Your task to perform on an android device: turn notification dots off Image 0: 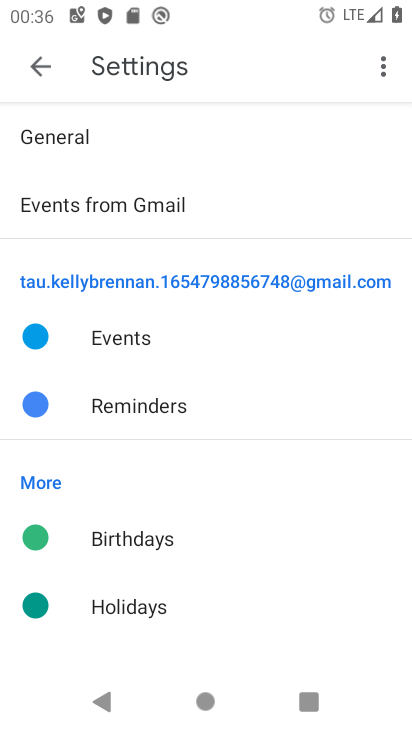
Step 0: press home button
Your task to perform on an android device: turn notification dots off Image 1: 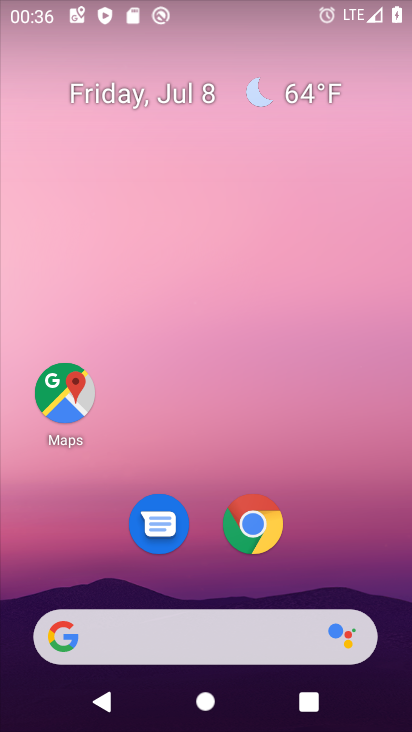
Step 1: drag from (326, 534) to (380, 31)
Your task to perform on an android device: turn notification dots off Image 2: 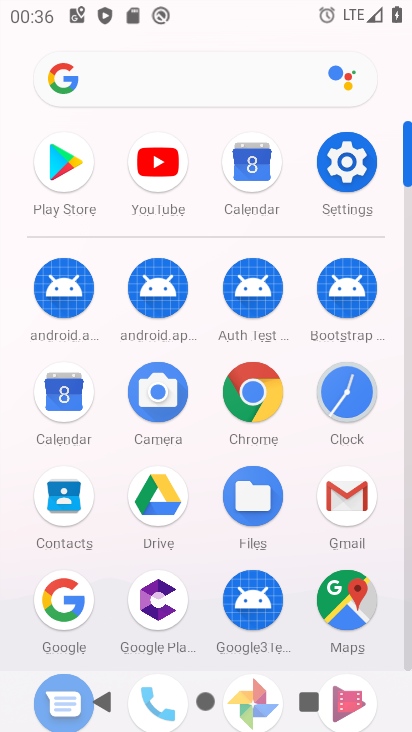
Step 2: click (343, 161)
Your task to perform on an android device: turn notification dots off Image 3: 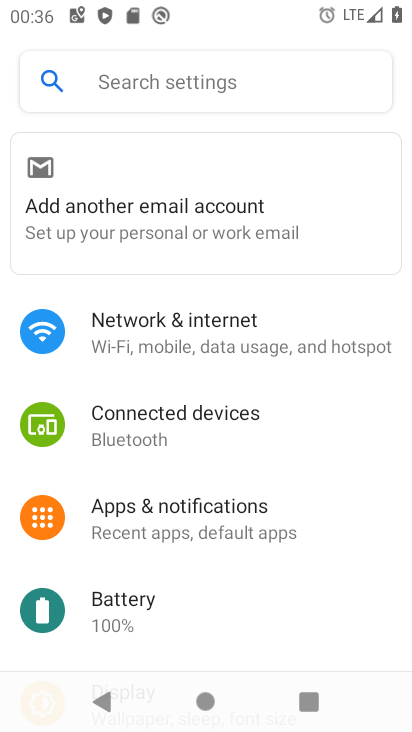
Step 3: click (214, 508)
Your task to perform on an android device: turn notification dots off Image 4: 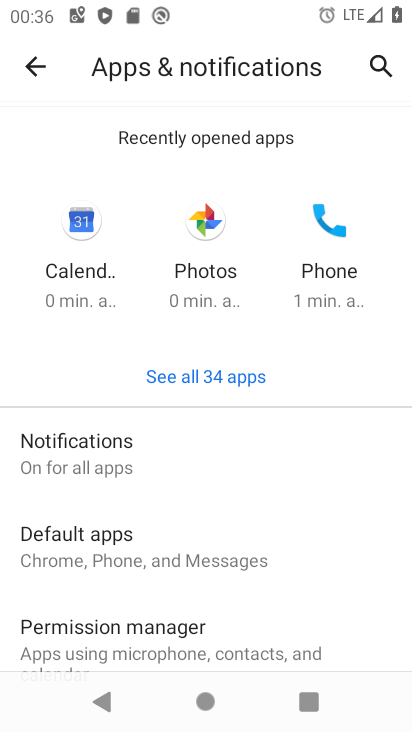
Step 4: click (118, 458)
Your task to perform on an android device: turn notification dots off Image 5: 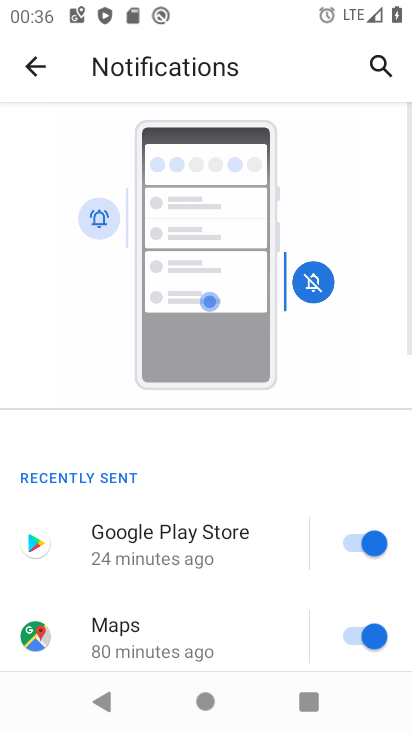
Step 5: drag from (242, 581) to (291, 117)
Your task to perform on an android device: turn notification dots off Image 6: 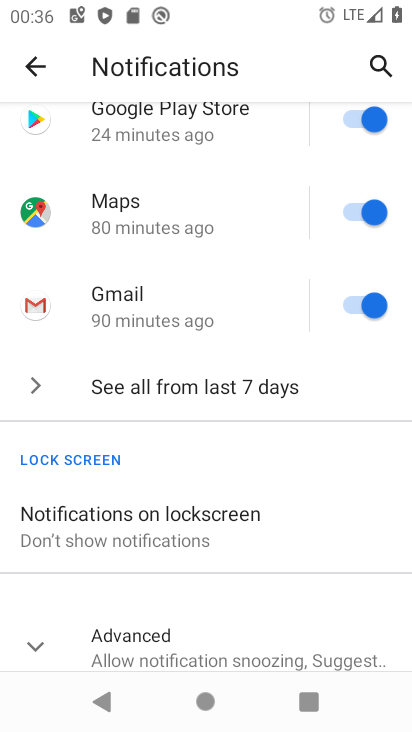
Step 6: click (35, 649)
Your task to perform on an android device: turn notification dots off Image 7: 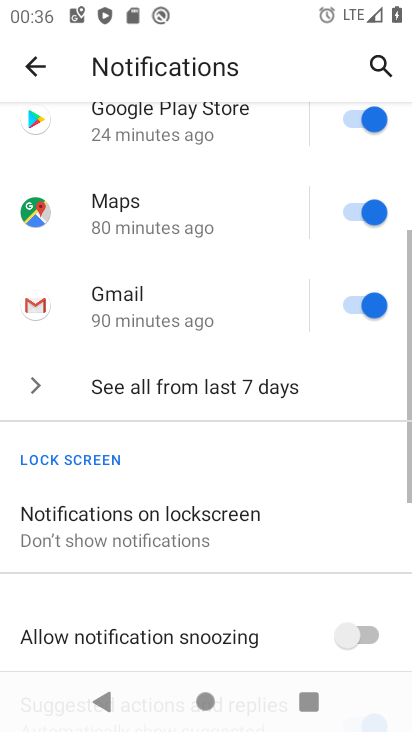
Step 7: drag from (246, 524) to (275, 137)
Your task to perform on an android device: turn notification dots off Image 8: 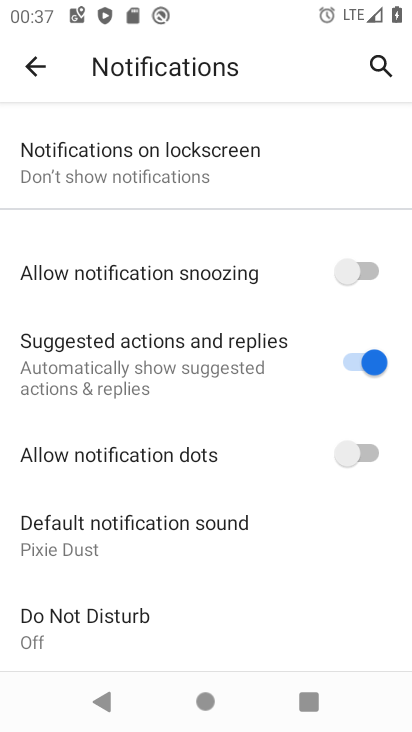
Step 8: click (357, 451)
Your task to perform on an android device: turn notification dots off Image 9: 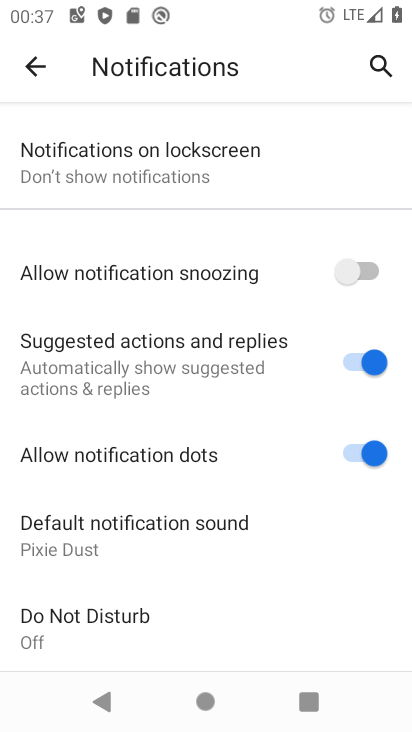
Step 9: task complete